Your task to perform on an android device: What's the weather? Image 0: 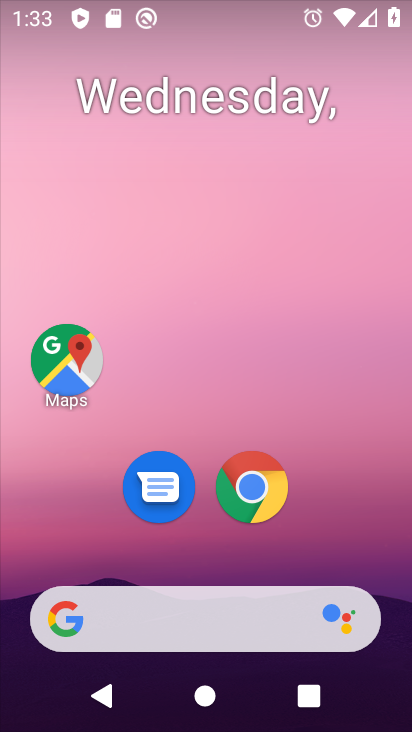
Step 0: drag from (380, 584) to (23, 40)
Your task to perform on an android device: What's the weather? Image 1: 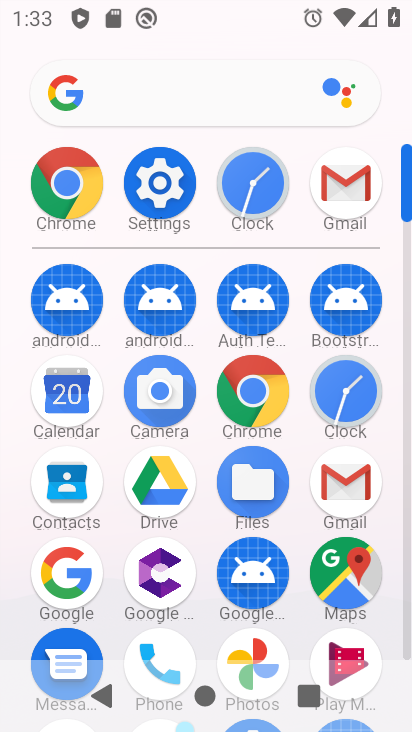
Step 1: click (74, 570)
Your task to perform on an android device: What's the weather? Image 2: 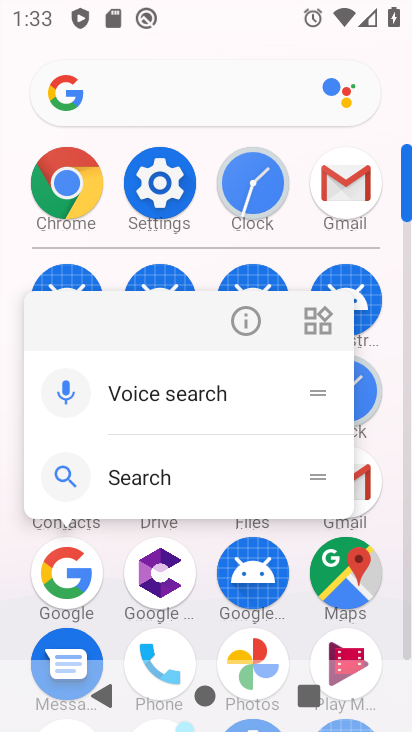
Step 2: click (75, 573)
Your task to perform on an android device: What's the weather? Image 3: 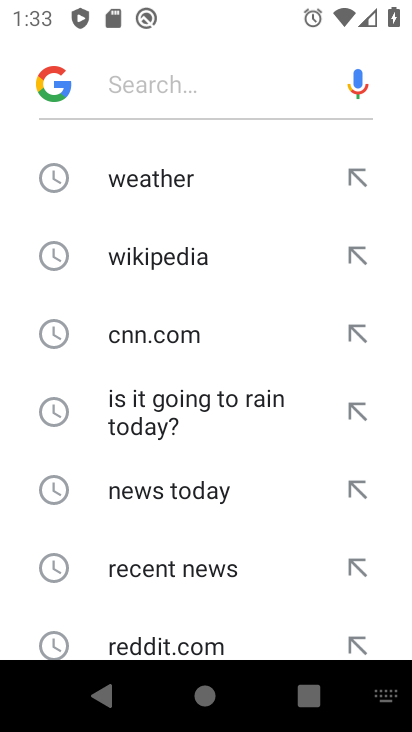
Step 3: click (168, 177)
Your task to perform on an android device: What's the weather? Image 4: 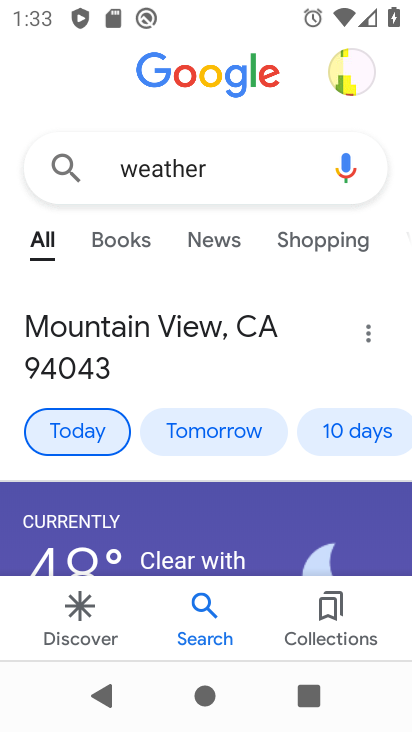
Step 4: task complete